Your task to perform on an android device: turn on data saver in the chrome app Image 0: 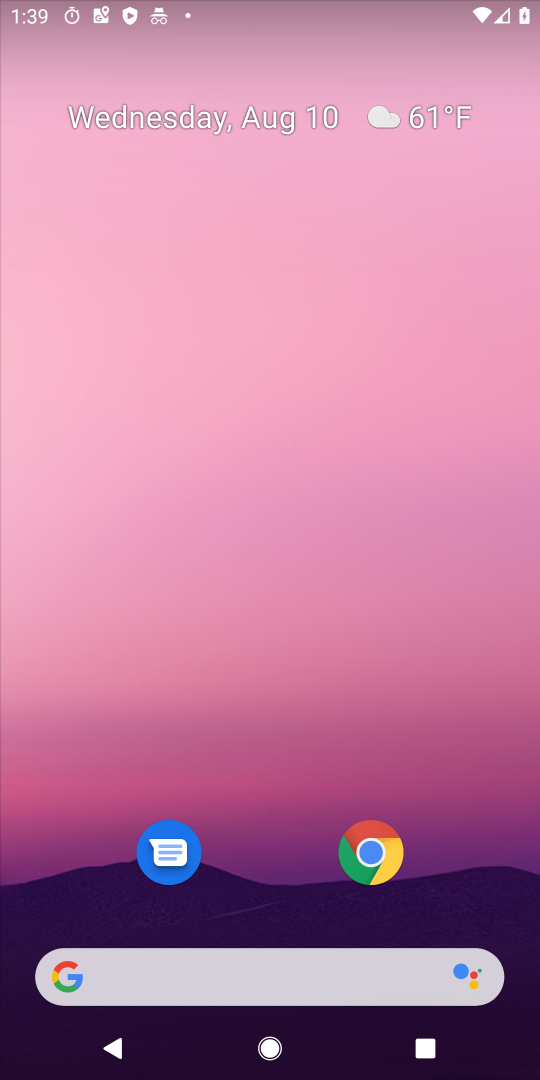
Step 0: drag from (258, 837) to (307, 162)
Your task to perform on an android device: turn on data saver in the chrome app Image 1: 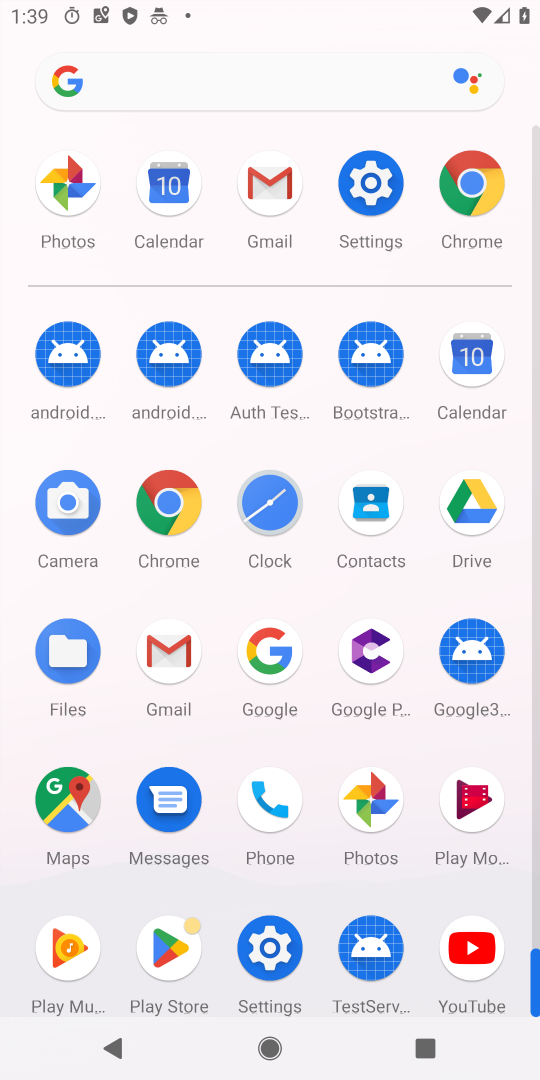
Step 1: click (171, 481)
Your task to perform on an android device: turn on data saver in the chrome app Image 2: 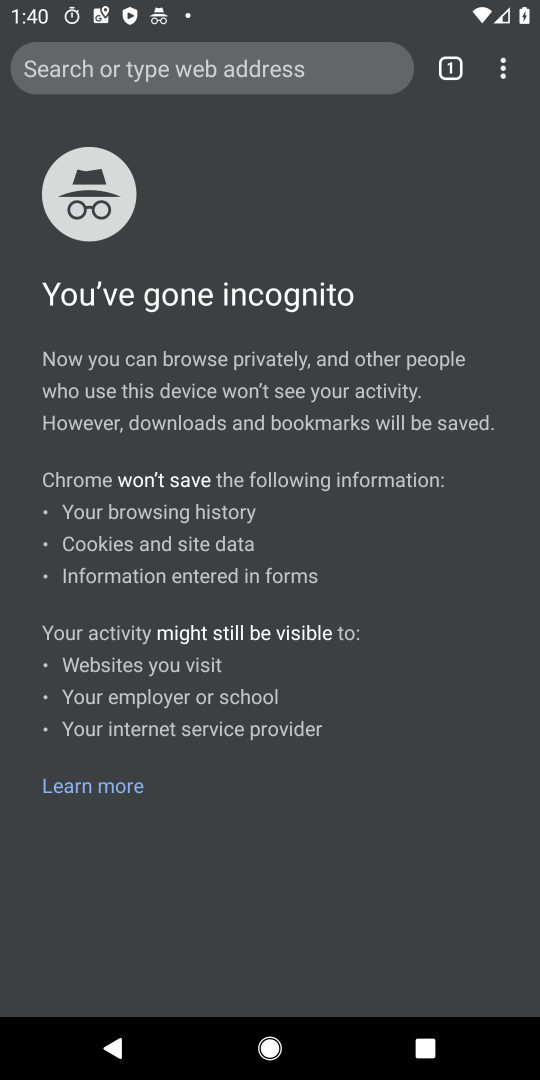
Step 2: drag from (508, 51) to (284, 507)
Your task to perform on an android device: turn on data saver in the chrome app Image 3: 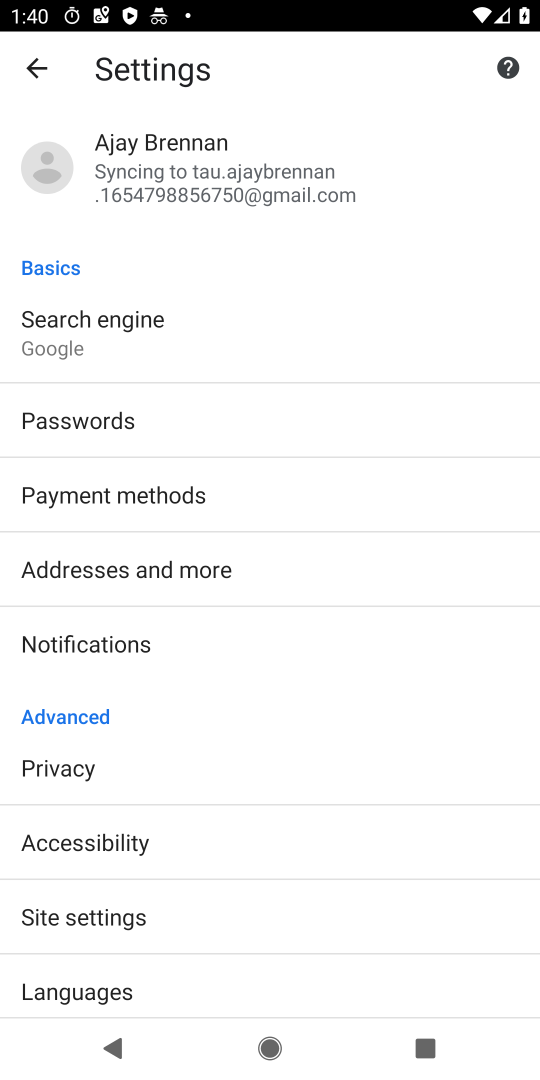
Step 3: drag from (268, 894) to (334, 276)
Your task to perform on an android device: turn on data saver in the chrome app Image 4: 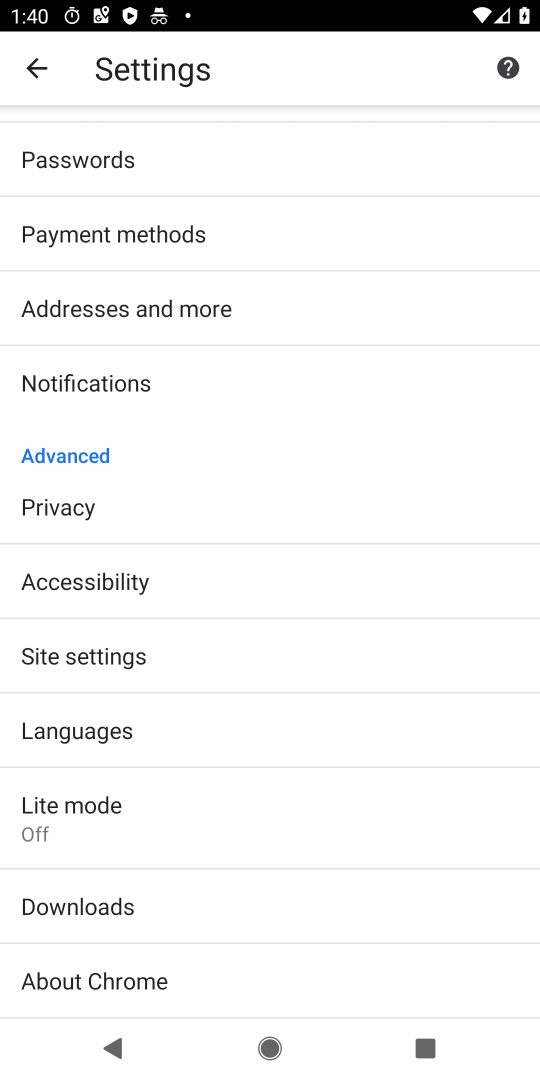
Step 4: click (129, 826)
Your task to perform on an android device: turn on data saver in the chrome app Image 5: 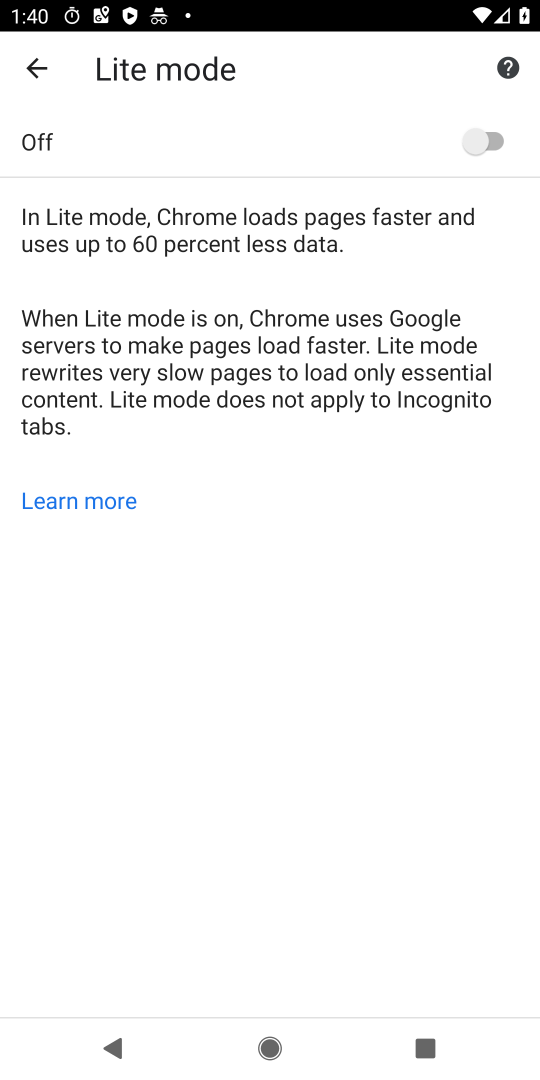
Step 5: click (484, 136)
Your task to perform on an android device: turn on data saver in the chrome app Image 6: 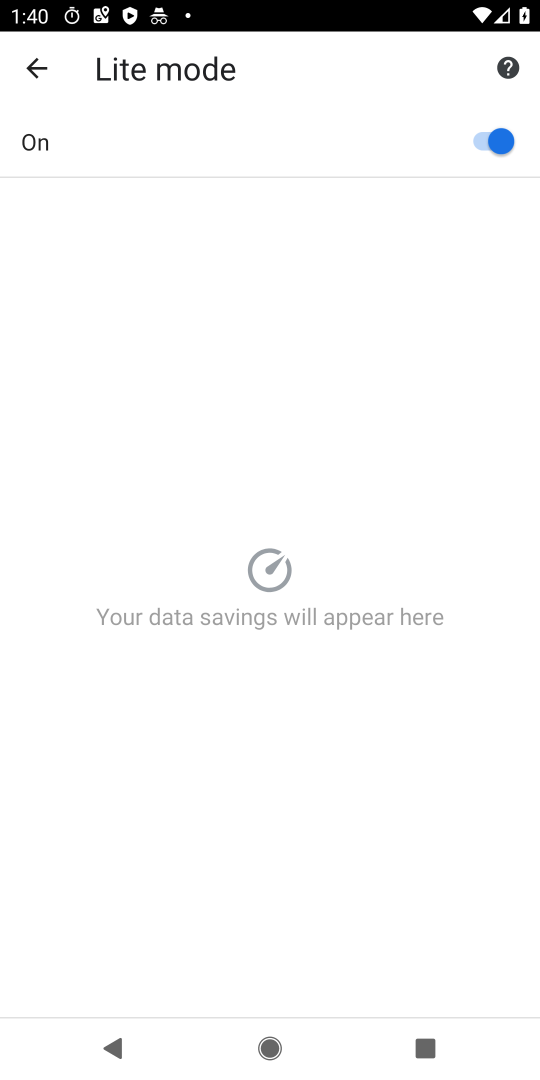
Step 6: task complete